Your task to perform on an android device: Go to battery settings Image 0: 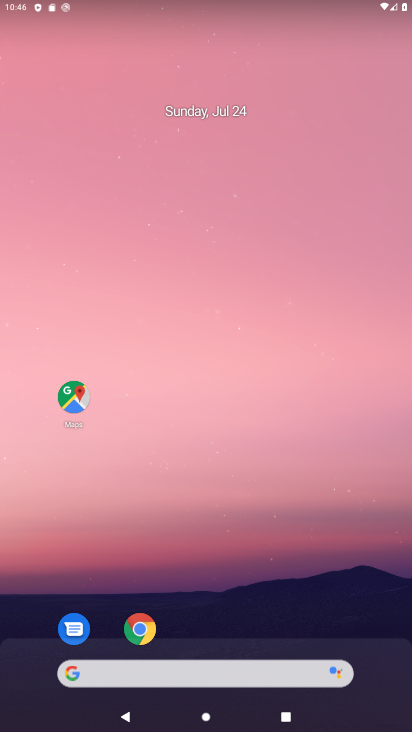
Step 0: drag from (227, 11) to (226, 415)
Your task to perform on an android device: Go to battery settings Image 1: 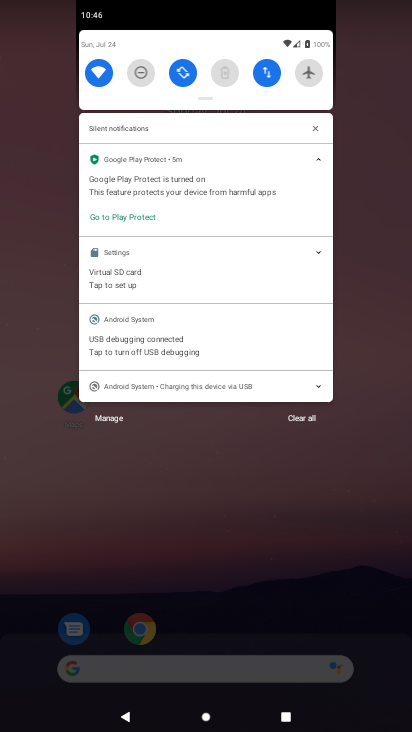
Step 1: click (215, 73)
Your task to perform on an android device: Go to battery settings Image 2: 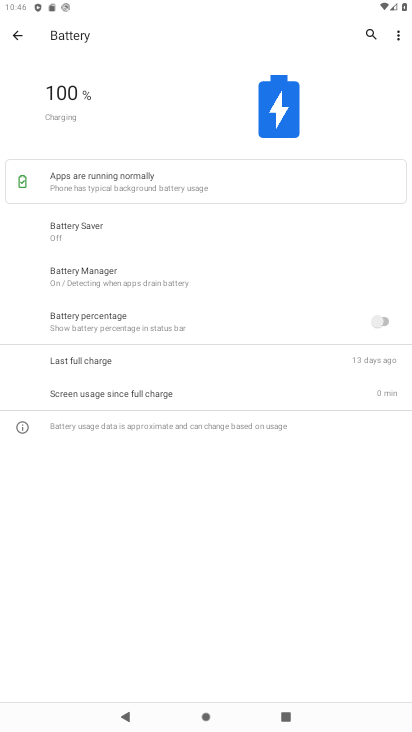
Step 2: task complete